Your task to perform on an android device: uninstall "Clock" Image 0: 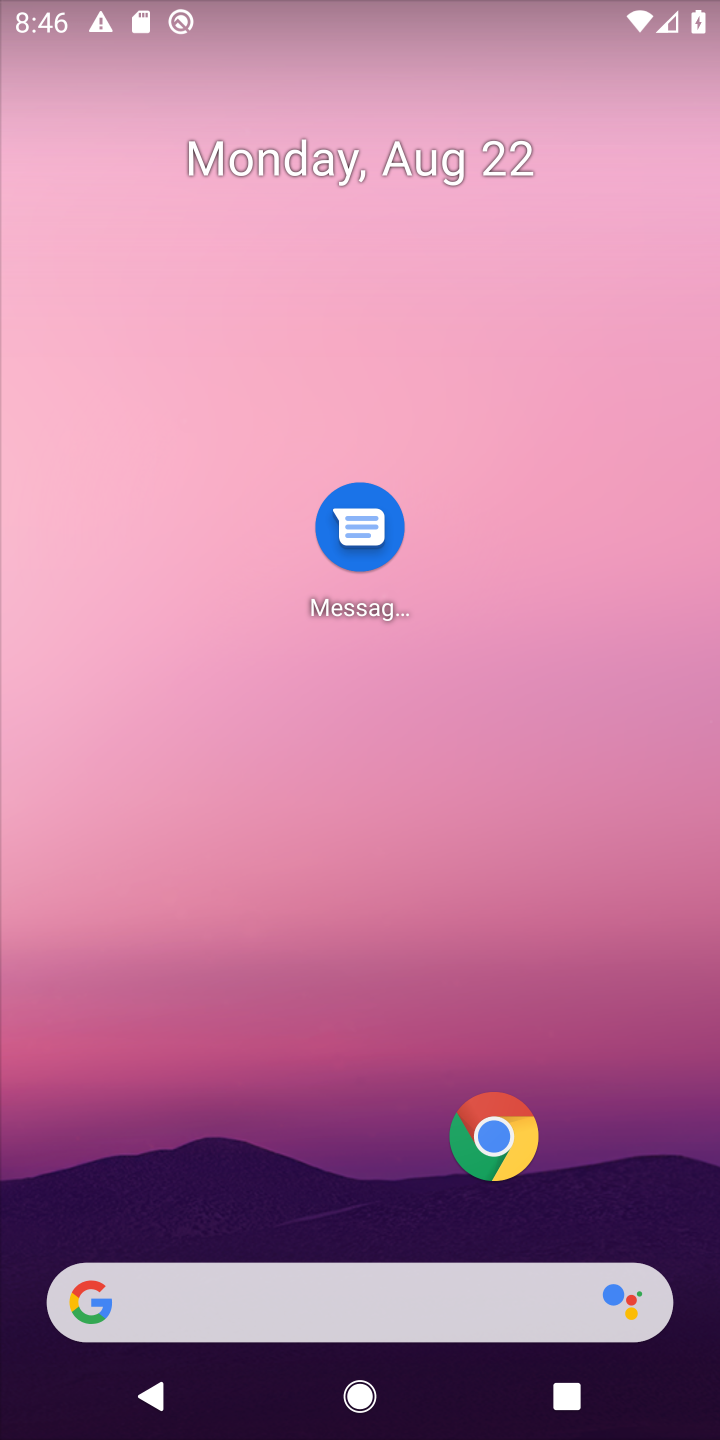
Step 0: drag from (272, 1175) to (581, 23)
Your task to perform on an android device: uninstall "Clock" Image 1: 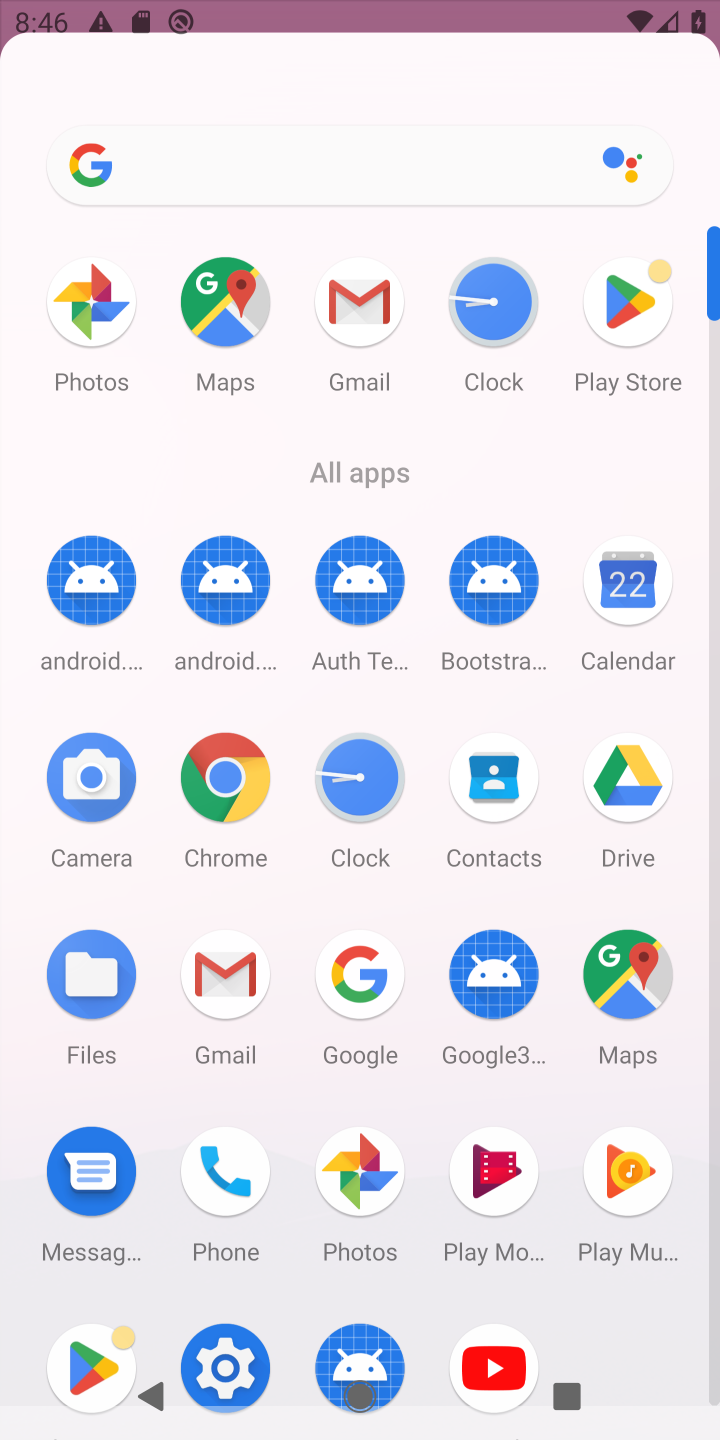
Step 1: click (610, 280)
Your task to perform on an android device: uninstall "Clock" Image 2: 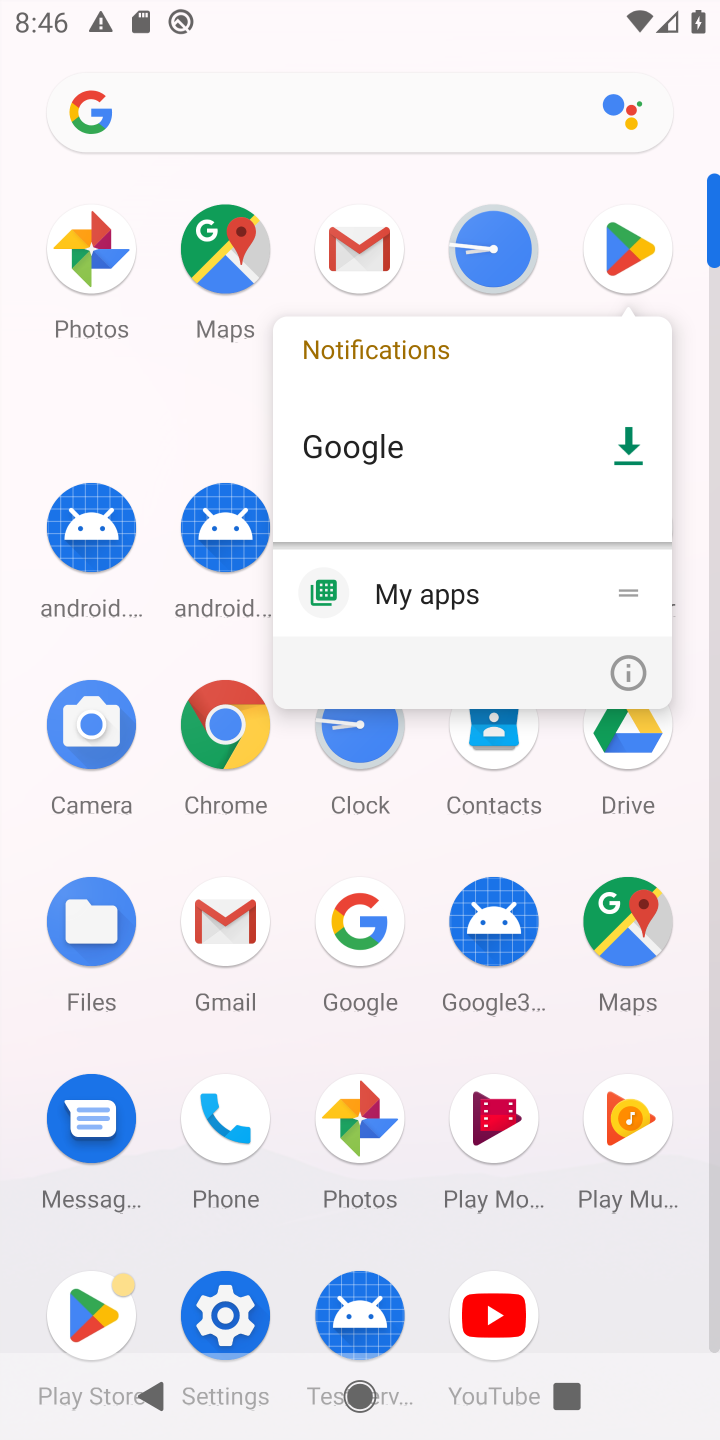
Step 2: click (622, 252)
Your task to perform on an android device: uninstall "Clock" Image 3: 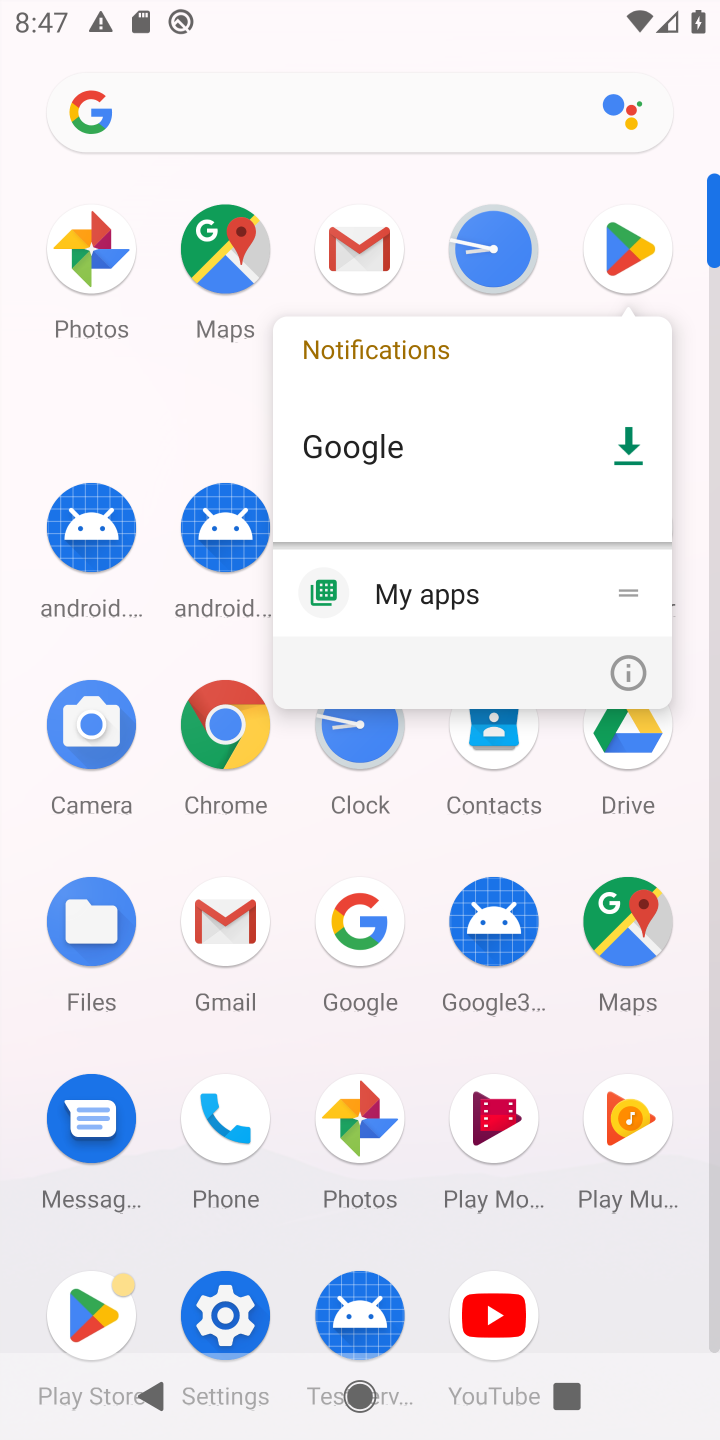
Step 3: click (100, 1315)
Your task to perform on an android device: uninstall "Clock" Image 4: 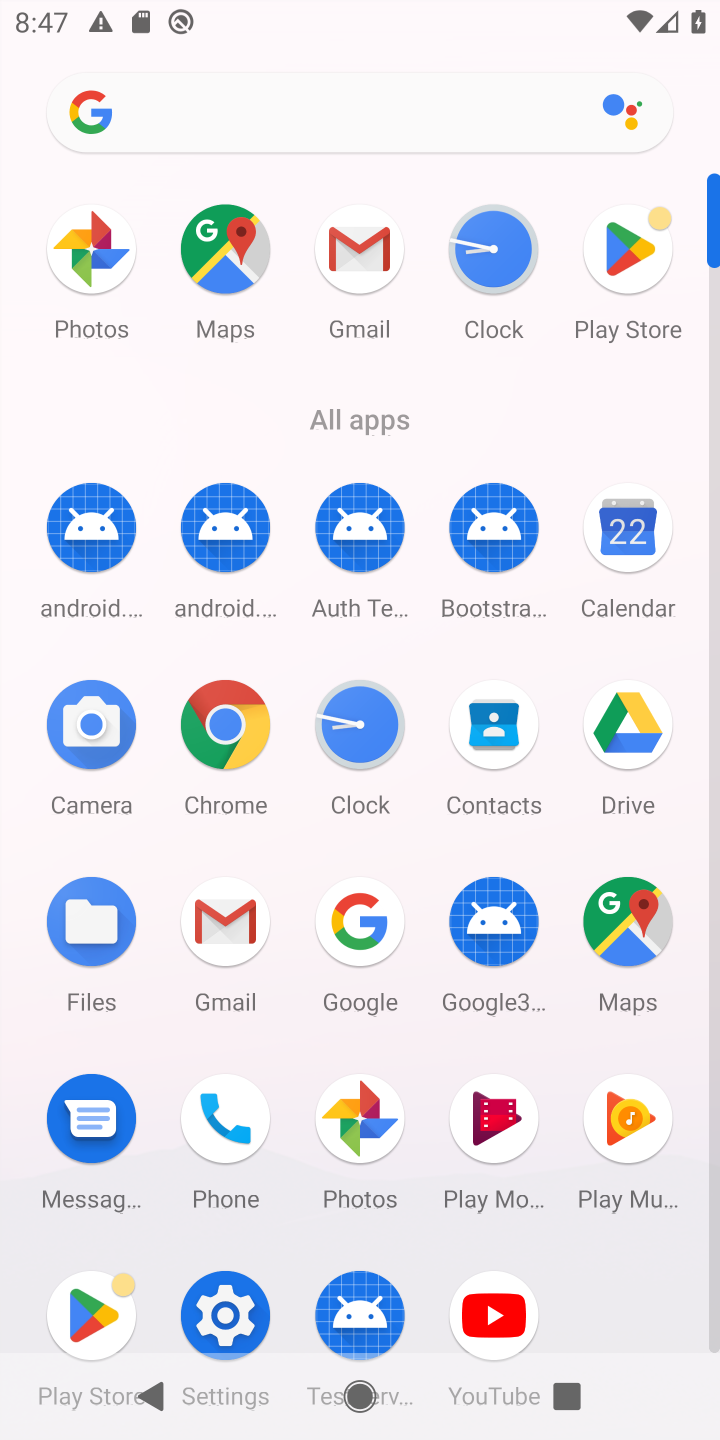
Step 4: click (97, 1307)
Your task to perform on an android device: uninstall "Clock" Image 5: 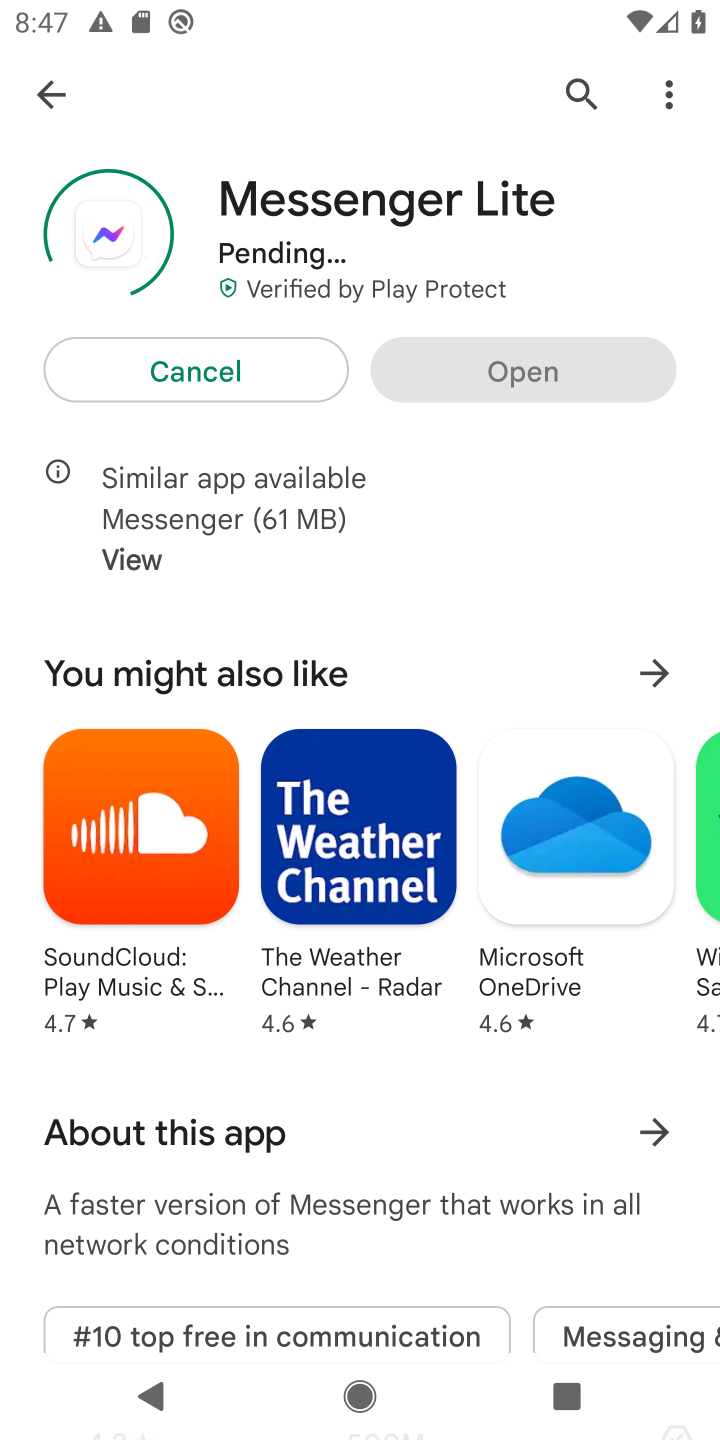
Step 5: click (93, 1294)
Your task to perform on an android device: uninstall "Clock" Image 6: 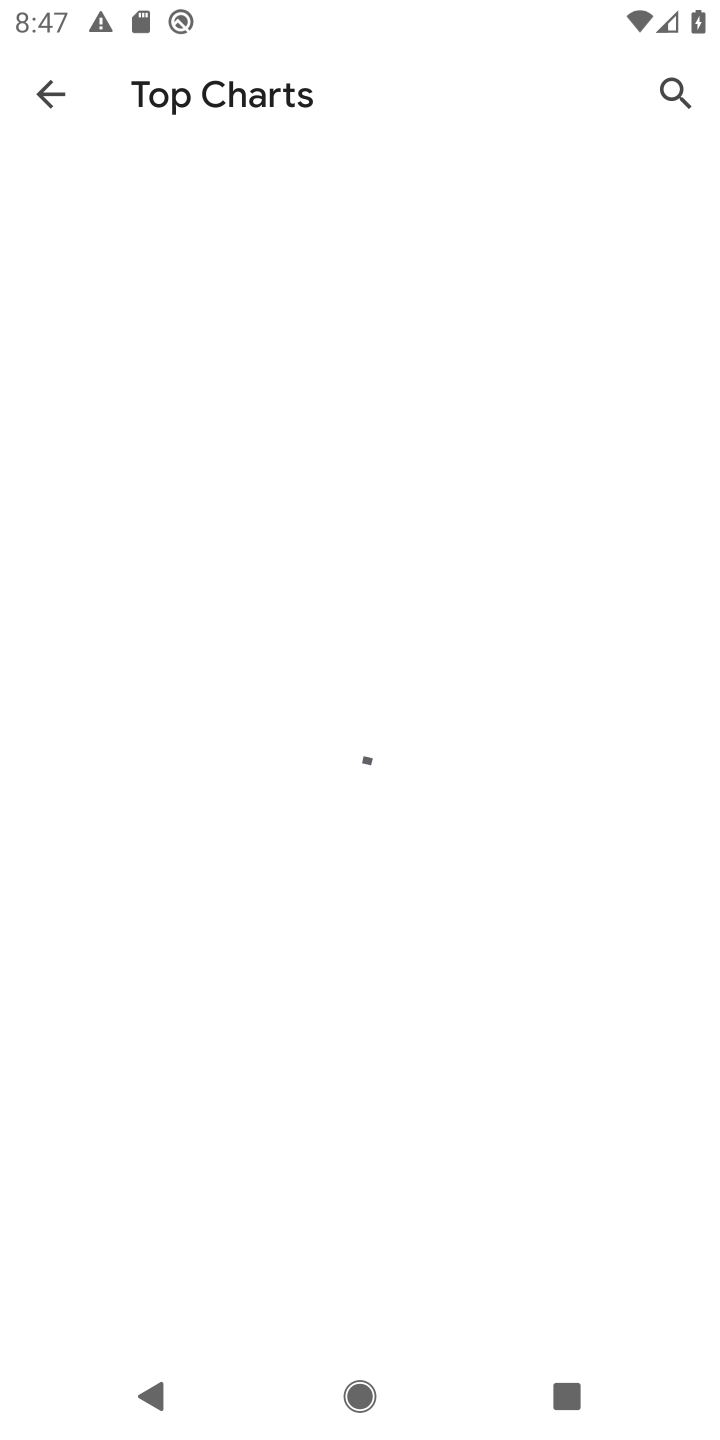
Step 6: click (74, 87)
Your task to perform on an android device: uninstall "Clock" Image 7: 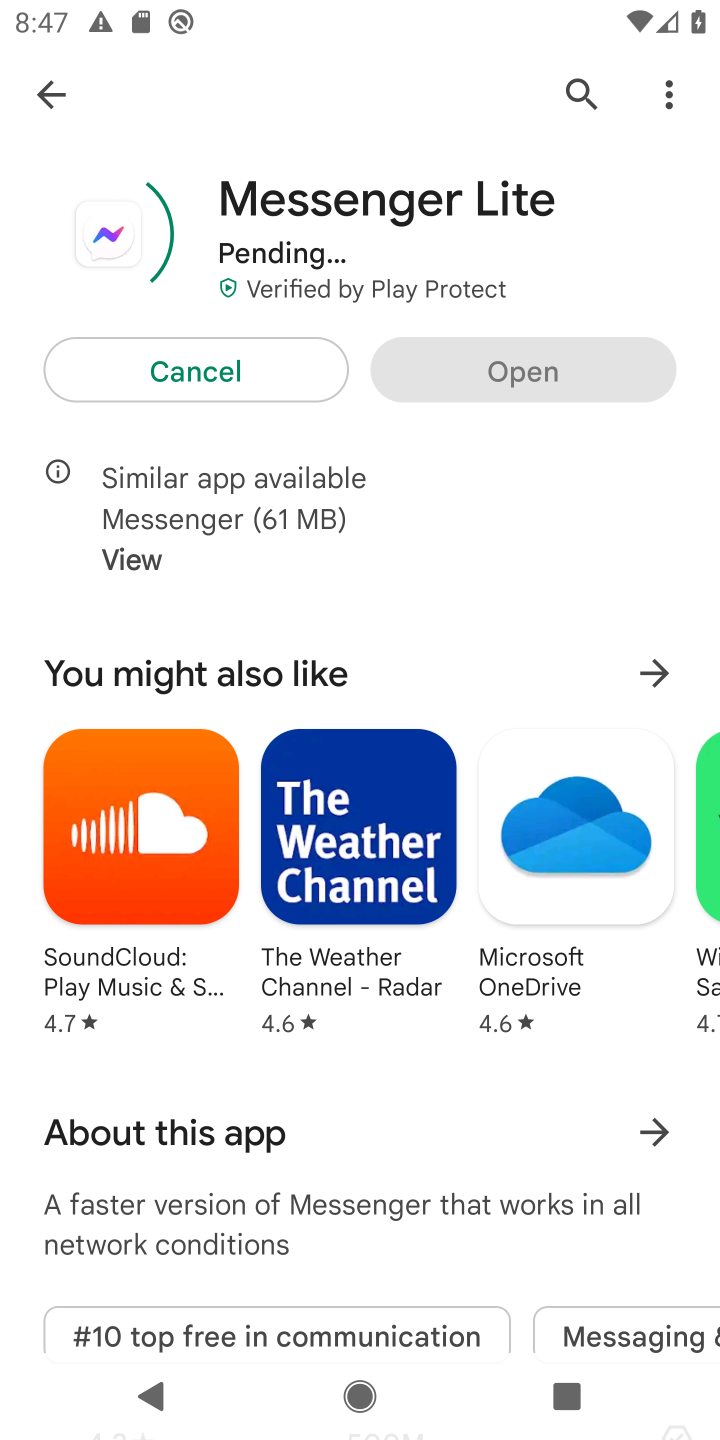
Step 7: click (74, 87)
Your task to perform on an android device: uninstall "Clock" Image 8: 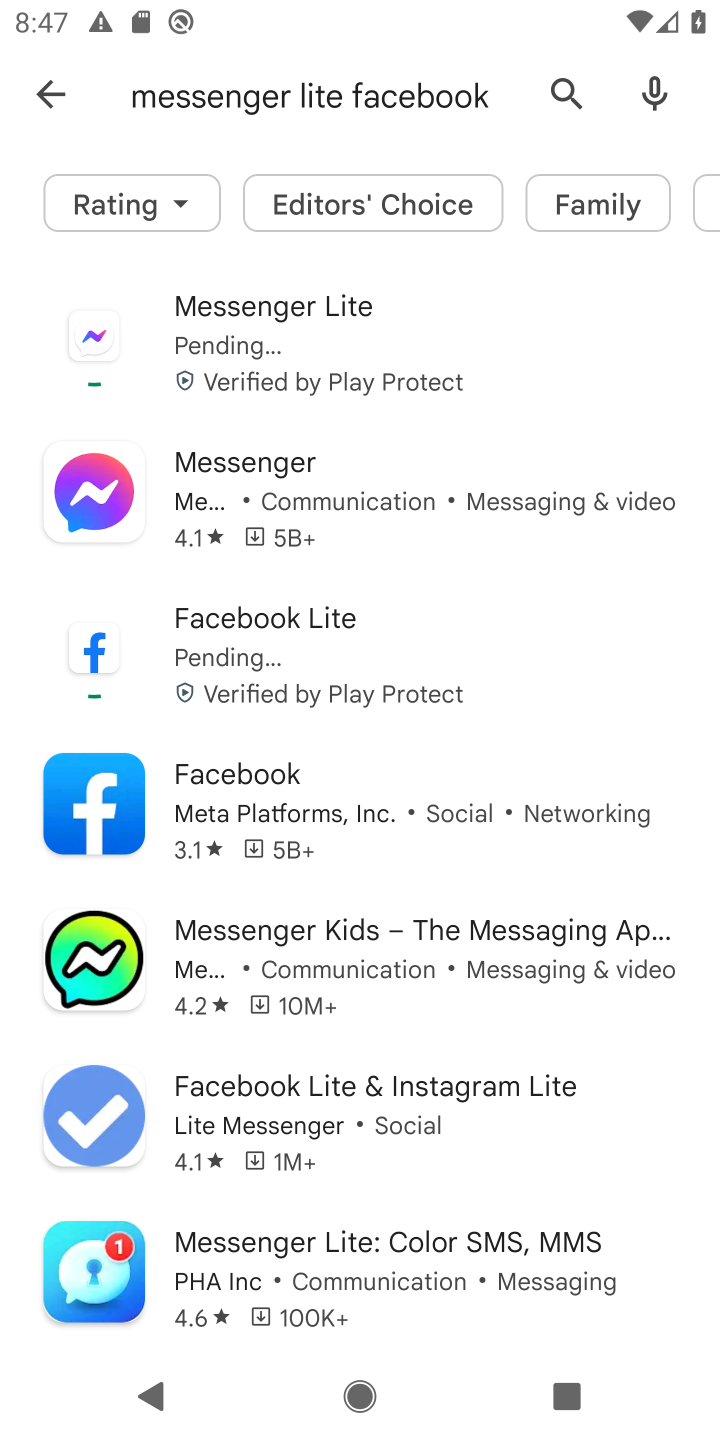
Step 8: click (45, 87)
Your task to perform on an android device: uninstall "Clock" Image 9: 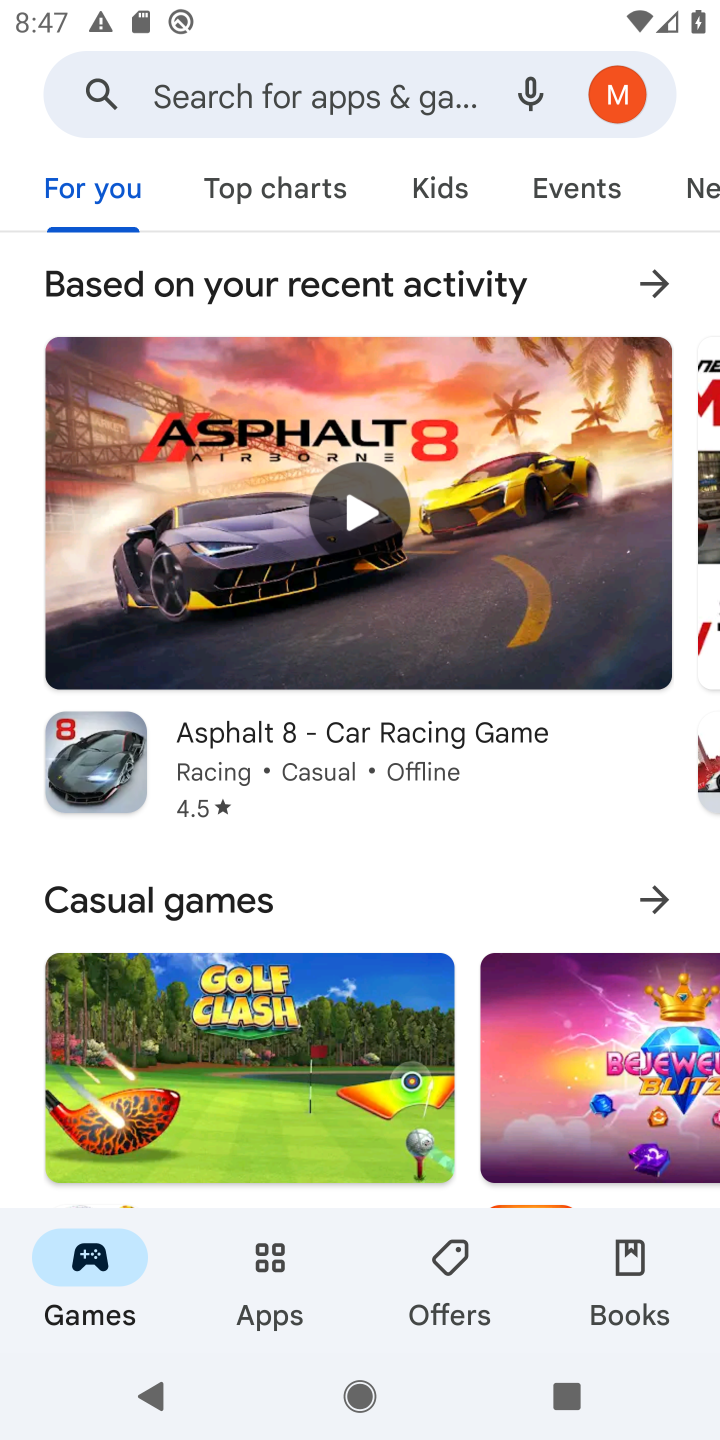
Step 9: click (435, 74)
Your task to perform on an android device: uninstall "Clock" Image 10: 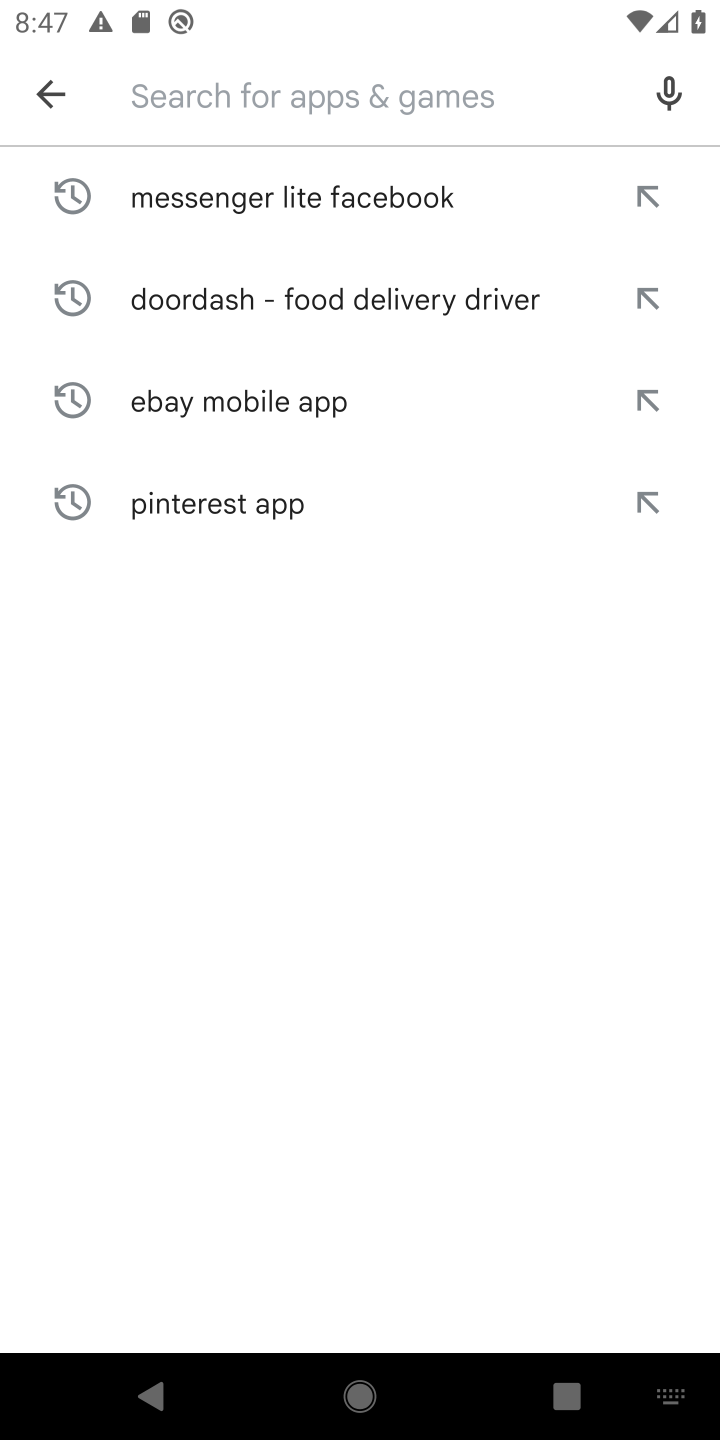
Step 10: type "Clock "
Your task to perform on an android device: uninstall "Clock" Image 11: 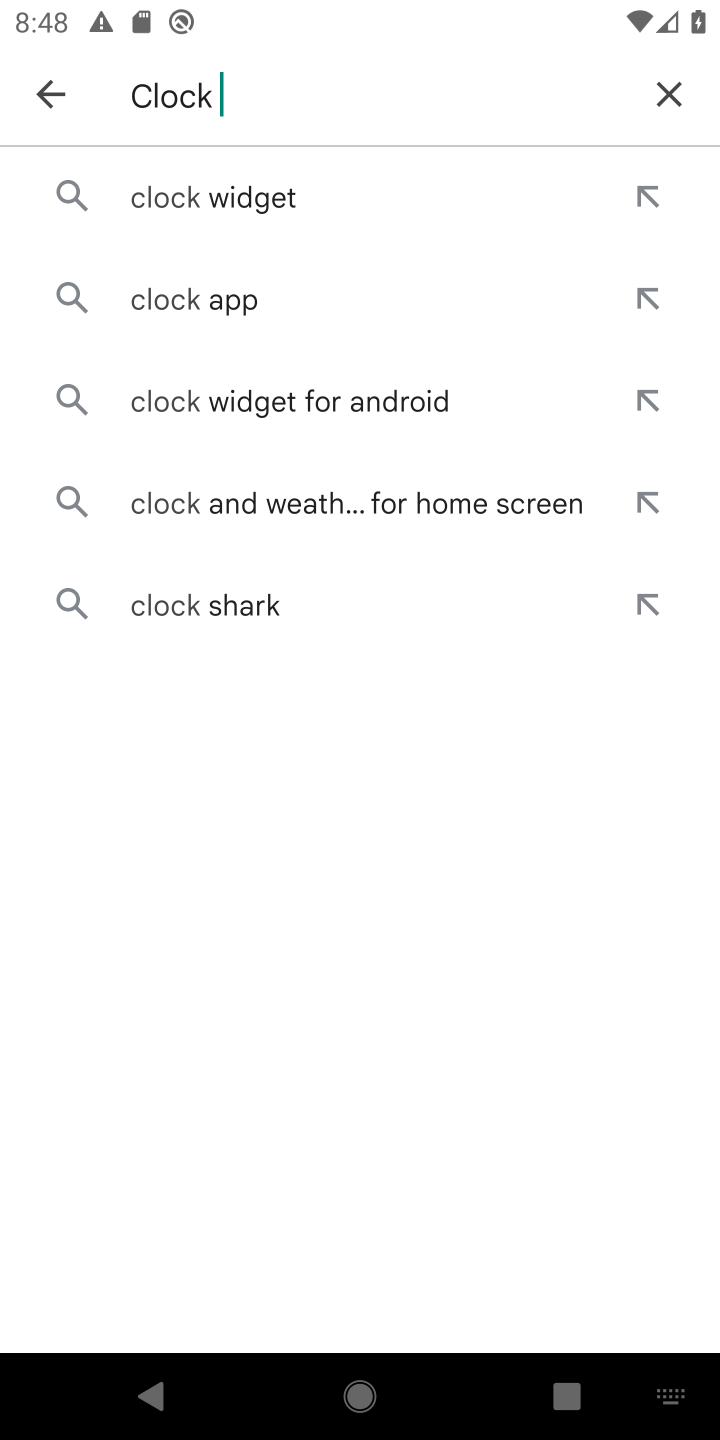
Step 11: click (235, 297)
Your task to perform on an android device: uninstall "Clock" Image 12: 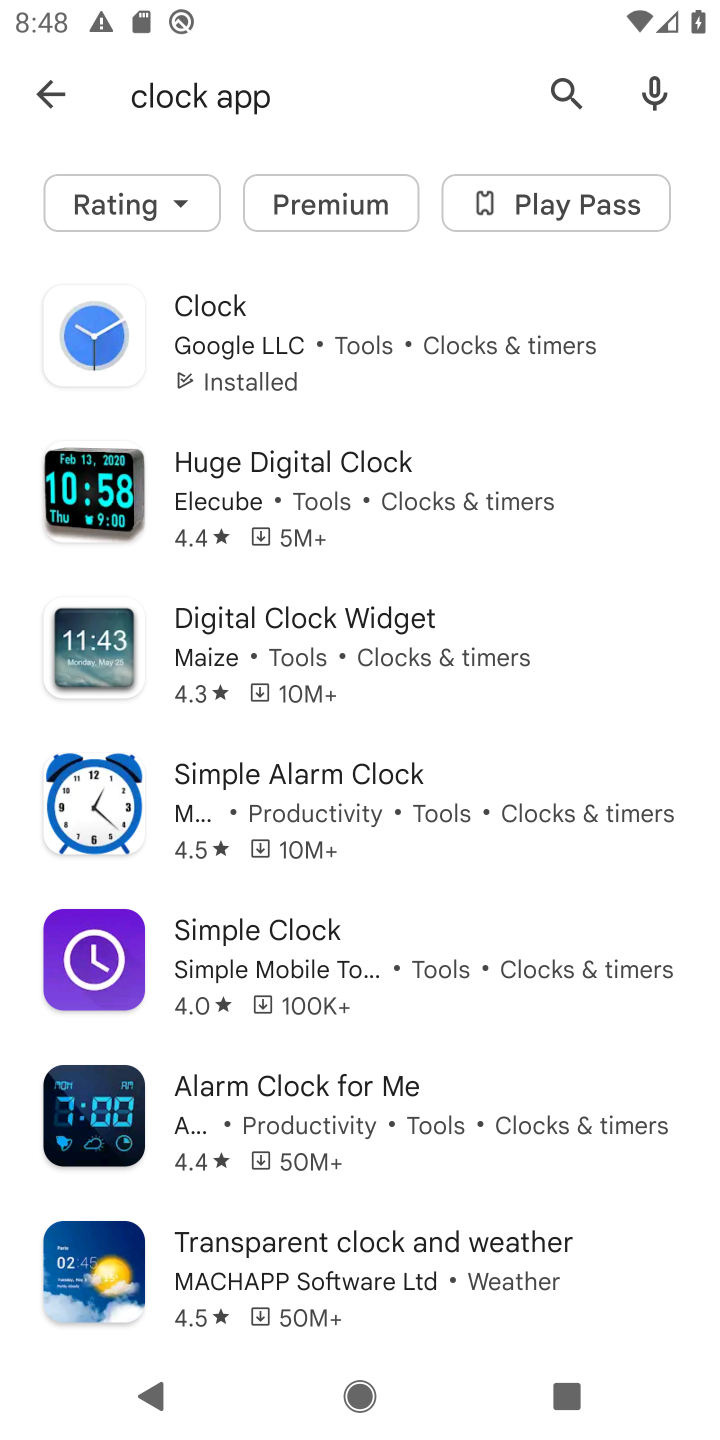
Step 12: click (382, 328)
Your task to perform on an android device: uninstall "Clock" Image 13: 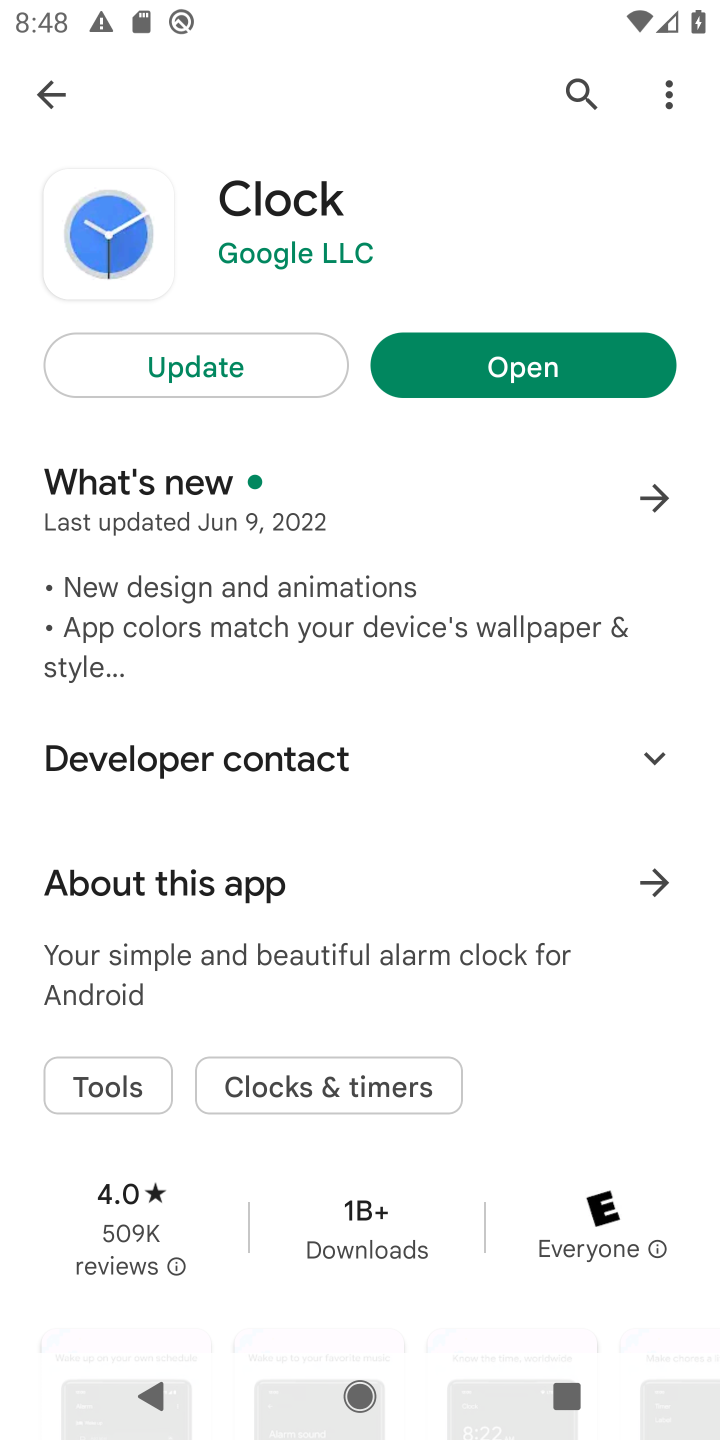
Step 13: click (274, 334)
Your task to perform on an android device: uninstall "Clock" Image 14: 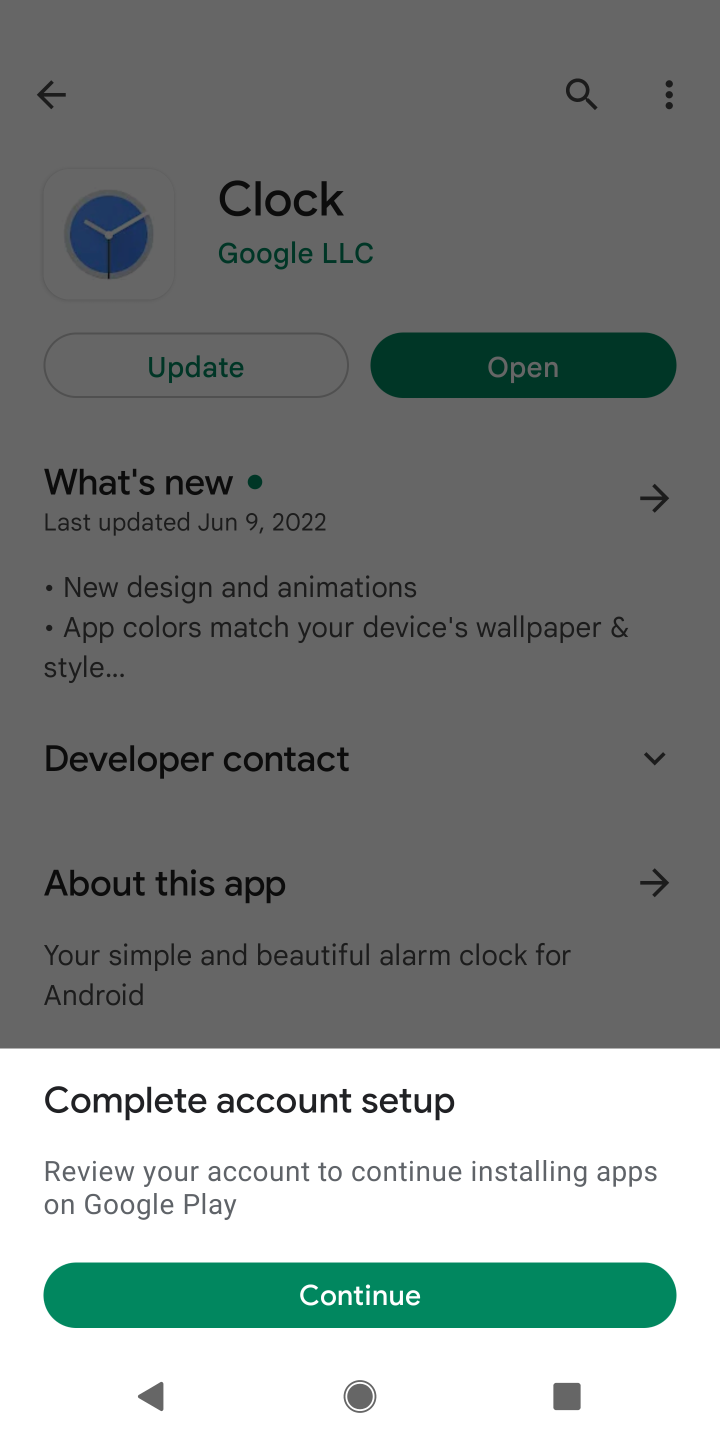
Step 14: task complete